Your task to perform on an android device: toggle wifi Image 0: 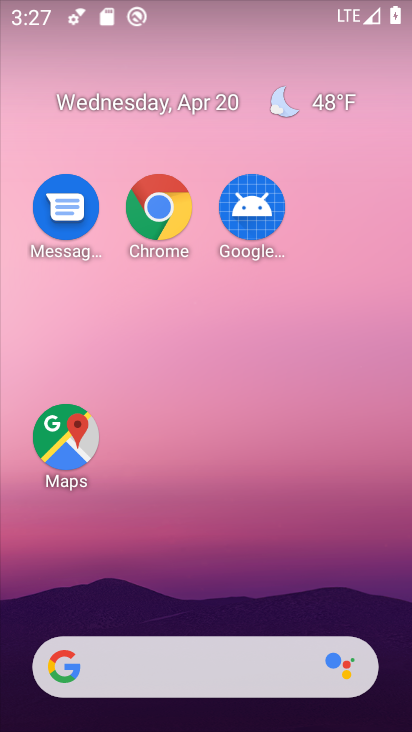
Step 0: drag from (181, 618) to (233, 197)
Your task to perform on an android device: toggle wifi Image 1: 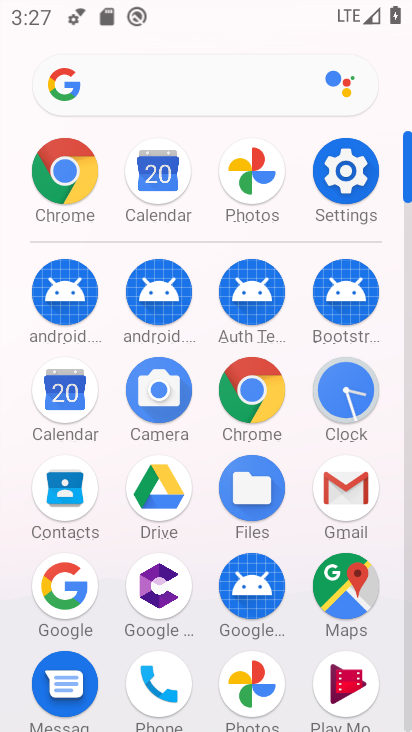
Step 1: click (350, 176)
Your task to perform on an android device: toggle wifi Image 2: 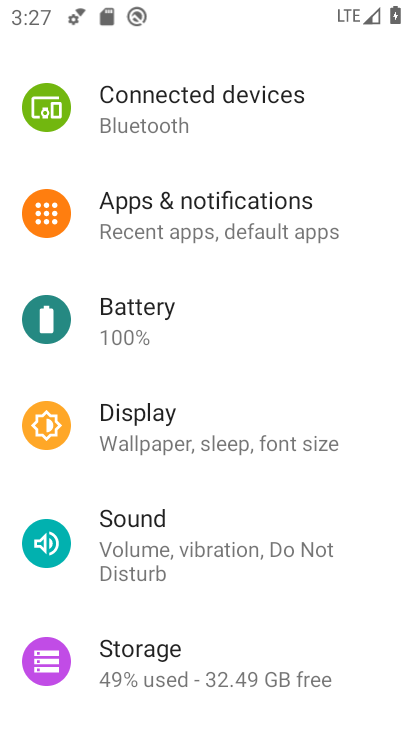
Step 2: drag from (245, 128) to (250, 380)
Your task to perform on an android device: toggle wifi Image 3: 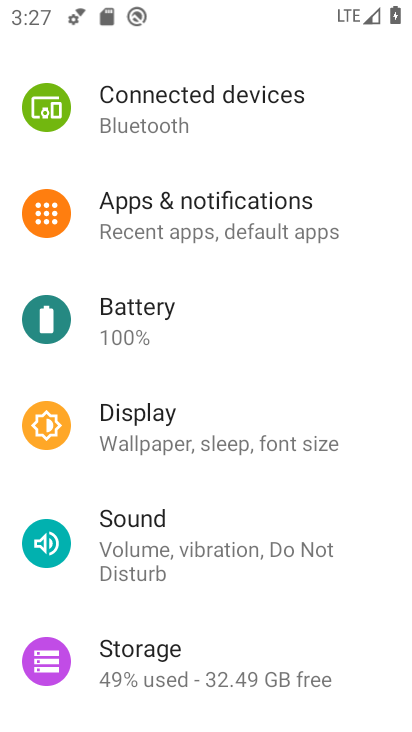
Step 3: drag from (252, 184) to (248, 696)
Your task to perform on an android device: toggle wifi Image 4: 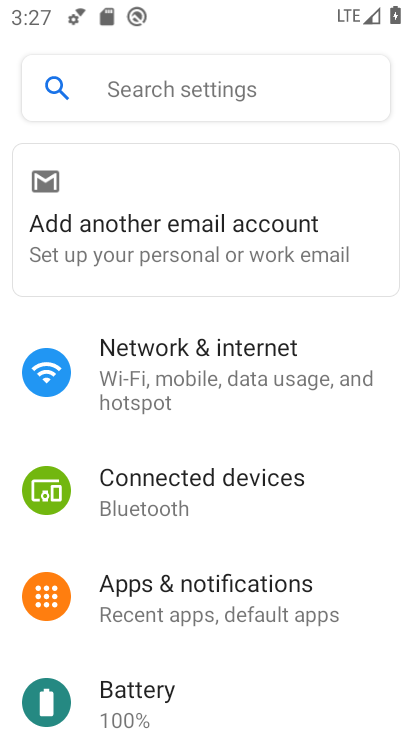
Step 4: drag from (279, 305) to (256, 479)
Your task to perform on an android device: toggle wifi Image 5: 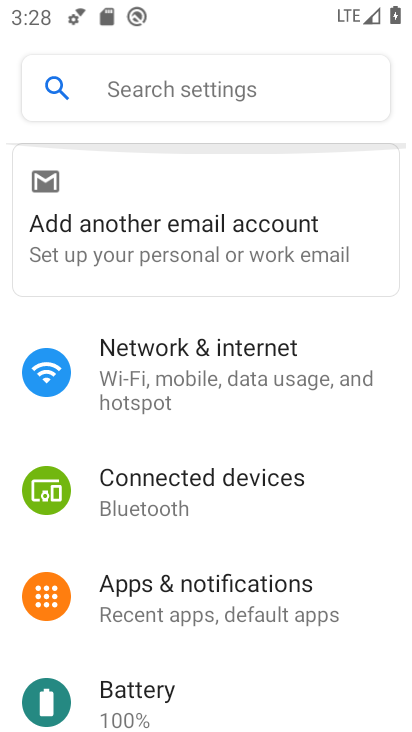
Step 5: click (243, 355)
Your task to perform on an android device: toggle wifi Image 6: 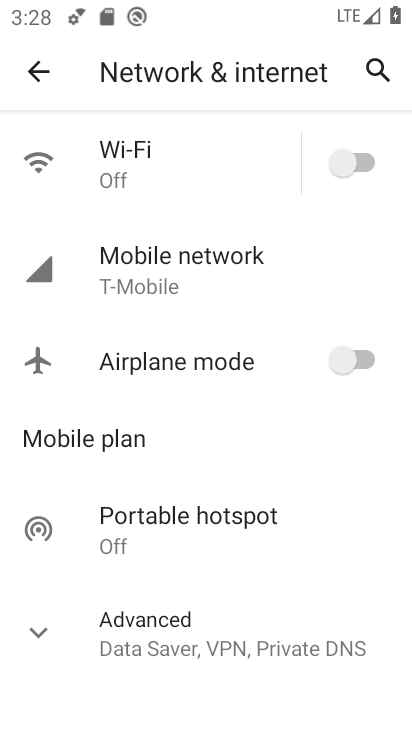
Step 6: click (369, 157)
Your task to perform on an android device: toggle wifi Image 7: 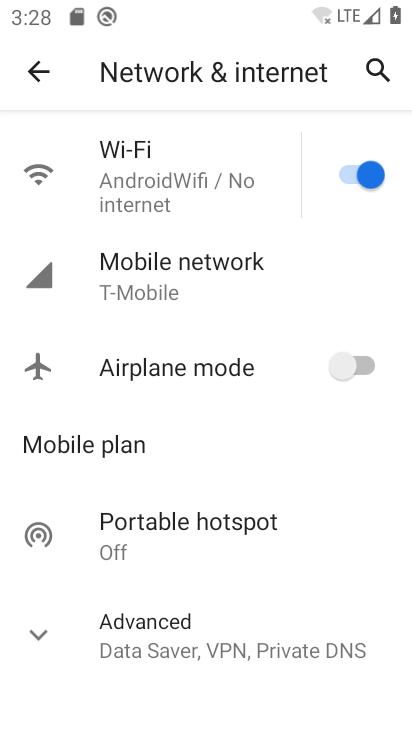
Step 7: task complete